Your task to perform on an android device: Search for a new blush on Sephora Image 0: 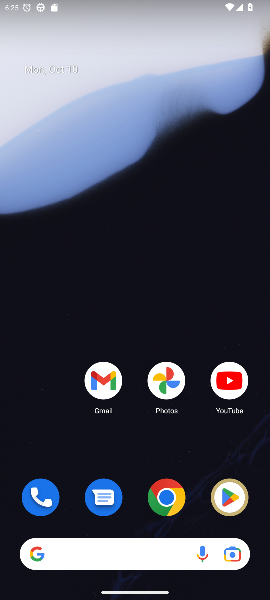
Step 0: drag from (60, 510) to (118, 231)
Your task to perform on an android device: Search for a new blush on Sephora Image 1: 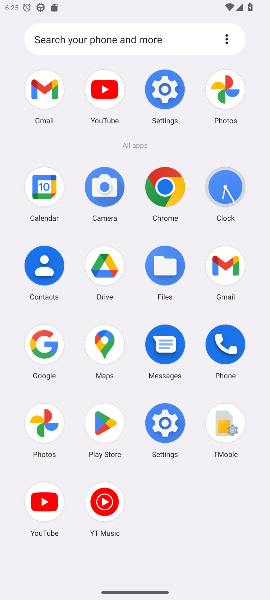
Step 1: click (44, 343)
Your task to perform on an android device: Search for a new blush on Sephora Image 2: 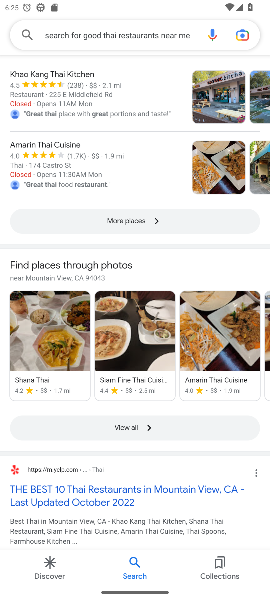
Step 2: click (167, 35)
Your task to perform on an android device: Search for a new blush on Sephora Image 3: 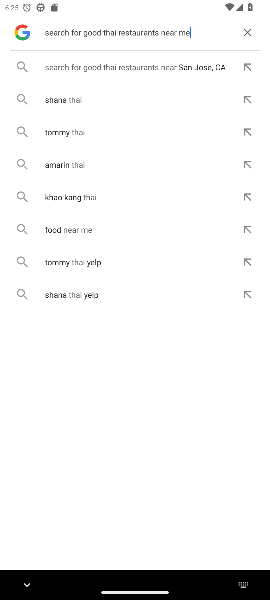
Step 3: click (242, 36)
Your task to perform on an android device: Search for a new blush on Sephora Image 4: 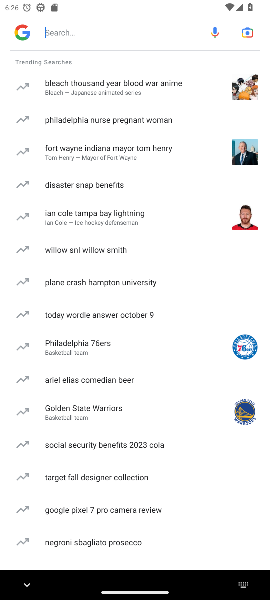
Step 4: click (89, 25)
Your task to perform on an android device: Search for a new blush on Sephora Image 5: 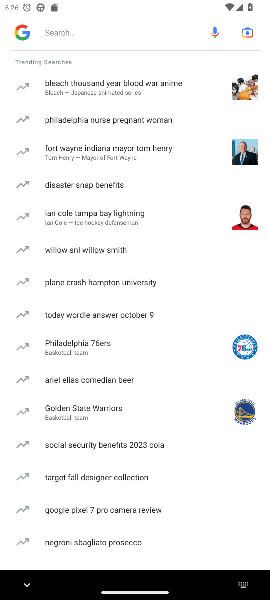
Step 5: type "Search for a new blush on Sephora"
Your task to perform on an android device: Search for a new blush on Sephora Image 6: 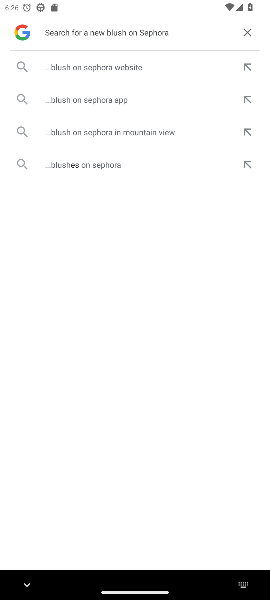
Step 6: click (101, 62)
Your task to perform on an android device: Search for a new blush on Sephora Image 7: 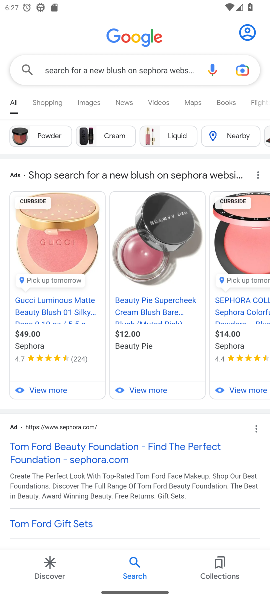
Step 7: task complete